Your task to perform on an android device: check the backup settings in the google photos Image 0: 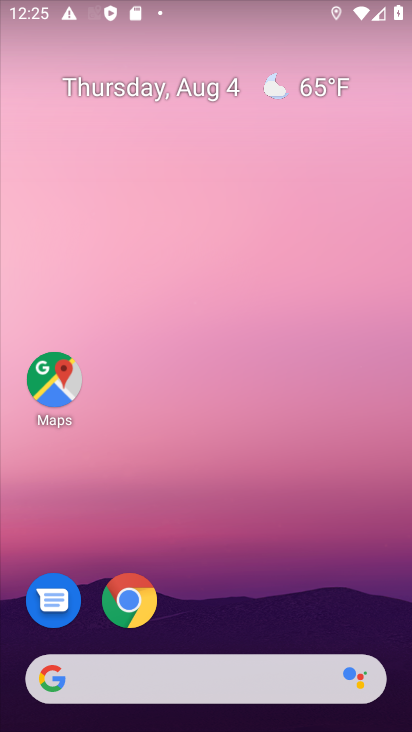
Step 0: drag from (193, 635) to (157, 111)
Your task to perform on an android device: check the backup settings in the google photos Image 1: 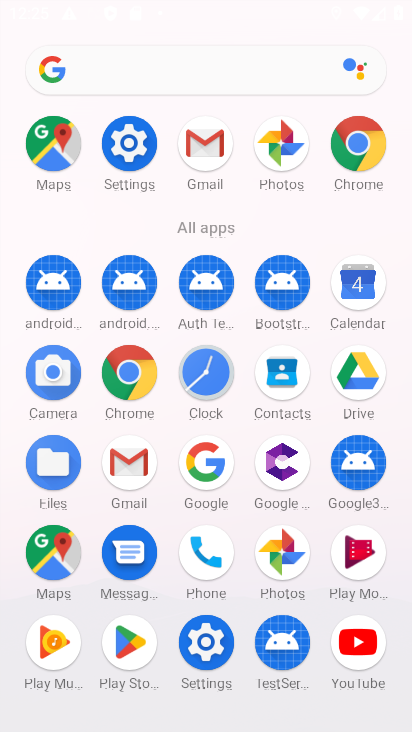
Step 1: click (276, 158)
Your task to perform on an android device: check the backup settings in the google photos Image 2: 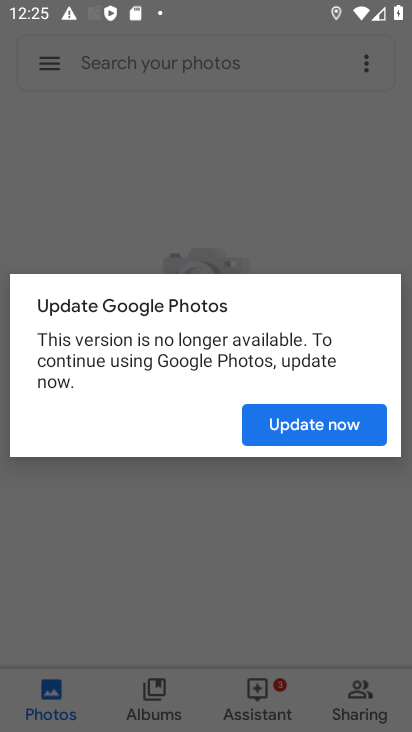
Step 2: click (280, 446)
Your task to perform on an android device: check the backup settings in the google photos Image 3: 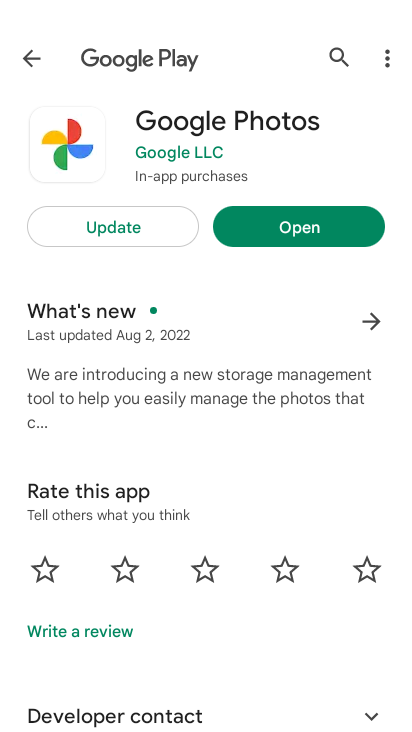
Step 3: click (264, 221)
Your task to perform on an android device: check the backup settings in the google photos Image 4: 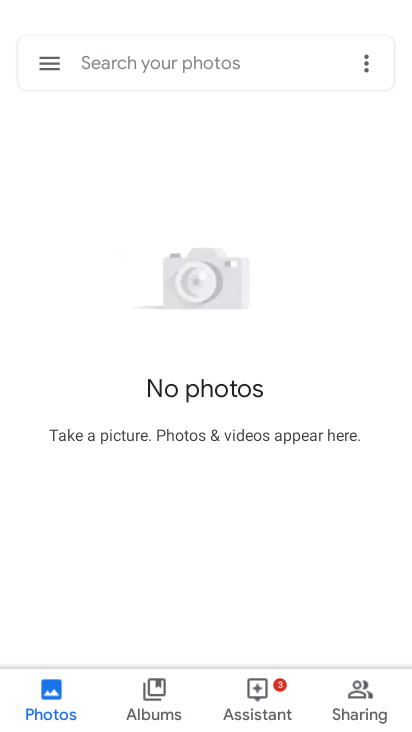
Step 4: click (54, 57)
Your task to perform on an android device: check the backup settings in the google photos Image 5: 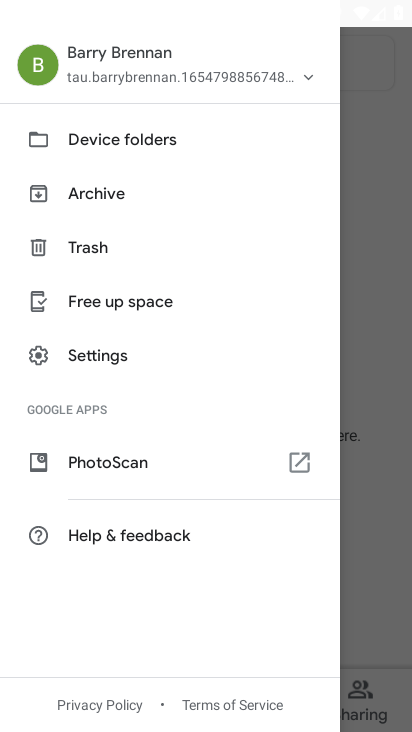
Step 5: click (122, 346)
Your task to perform on an android device: check the backup settings in the google photos Image 6: 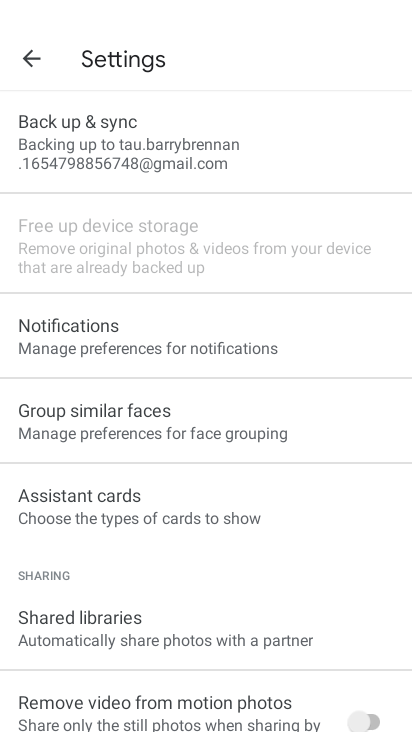
Step 6: click (121, 175)
Your task to perform on an android device: check the backup settings in the google photos Image 7: 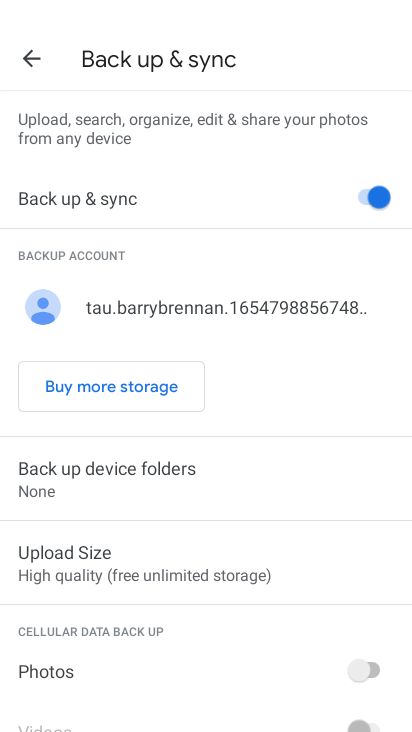
Step 7: click (111, 484)
Your task to perform on an android device: check the backup settings in the google photos Image 8: 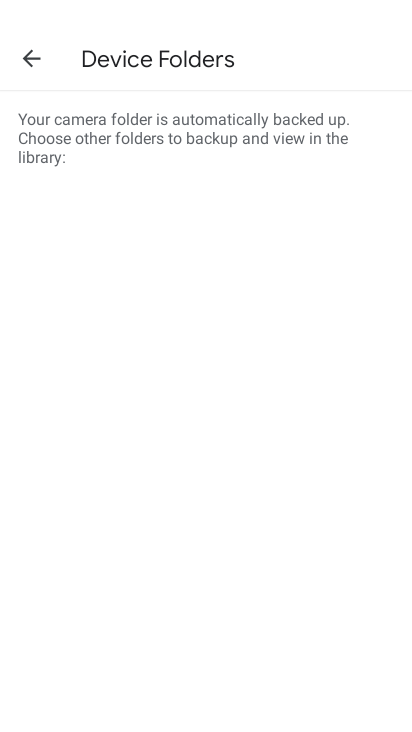
Step 8: click (14, 50)
Your task to perform on an android device: check the backup settings in the google photos Image 9: 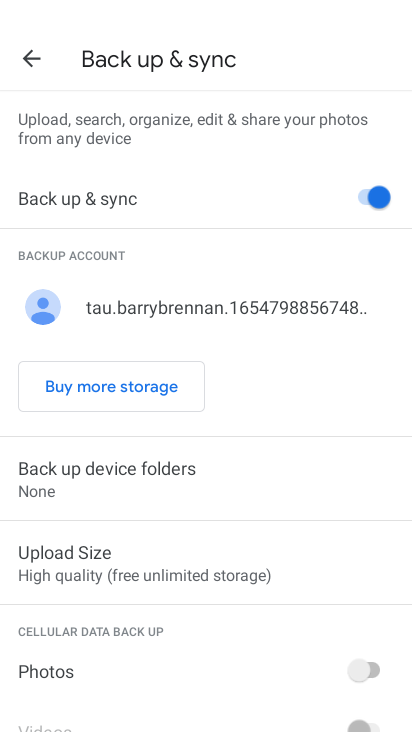
Step 9: task complete